Your task to perform on an android device: Search for the best coffee tables on Crate & Barrel Image 0: 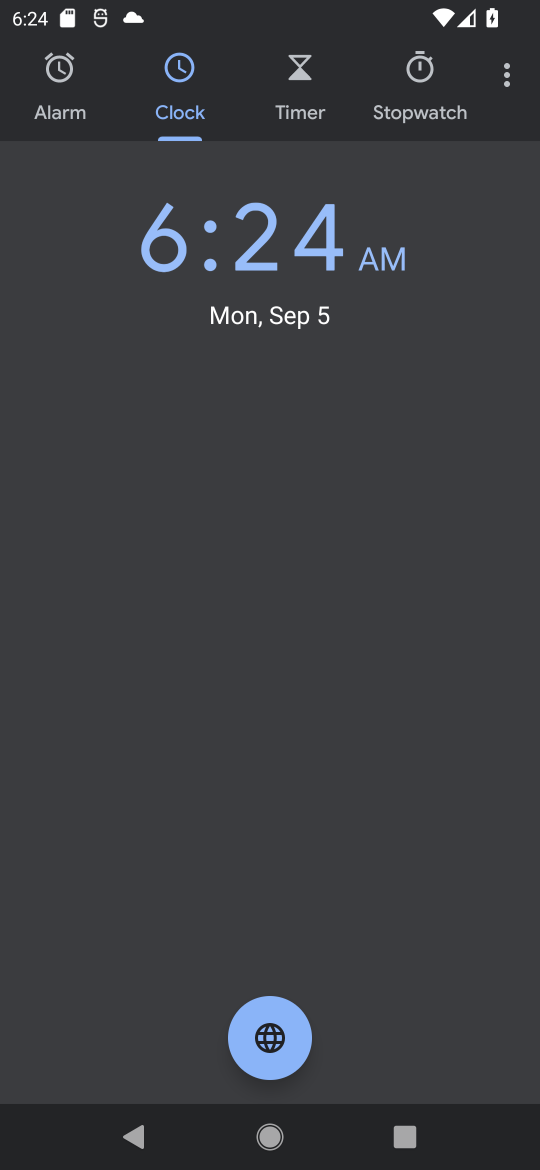
Step 0: press home button
Your task to perform on an android device: Search for the best coffee tables on Crate & Barrel Image 1: 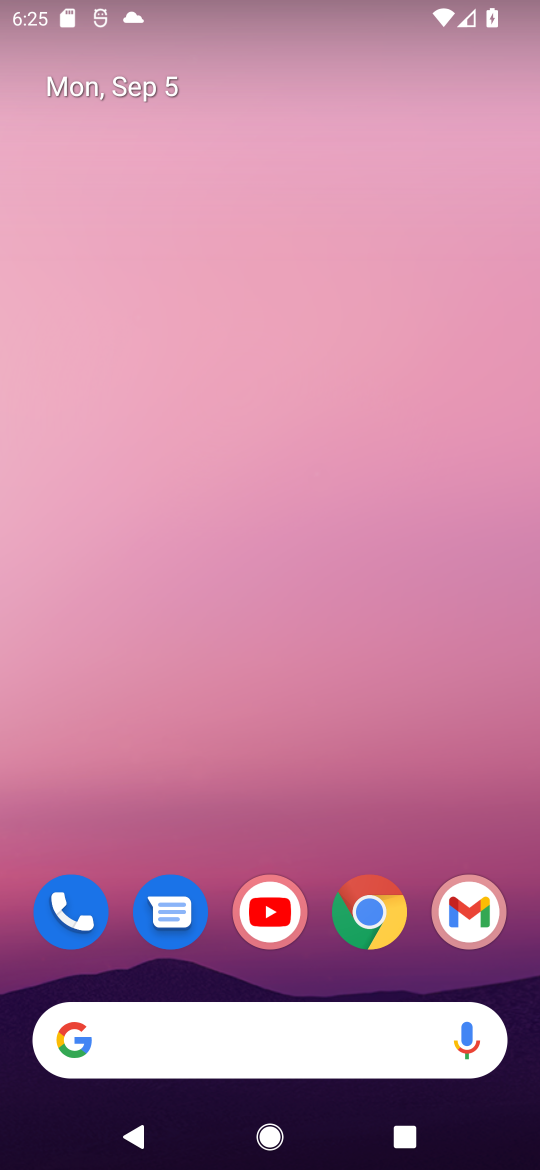
Step 1: click (364, 915)
Your task to perform on an android device: Search for the best coffee tables on Crate & Barrel Image 2: 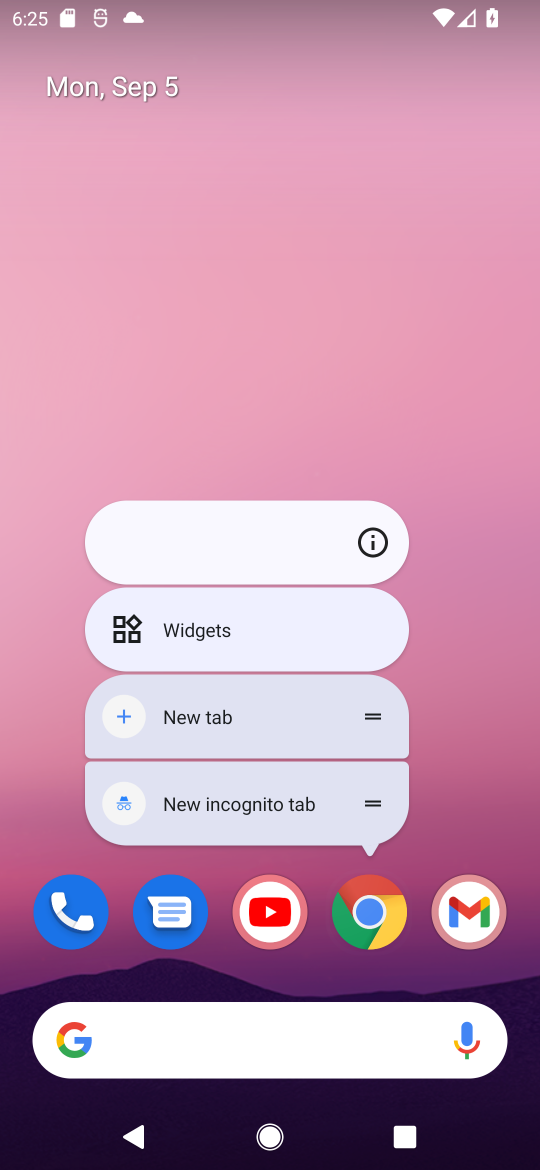
Step 2: click (364, 915)
Your task to perform on an android device: Search for the best coffee tables on Crate & Barrel Image 3: 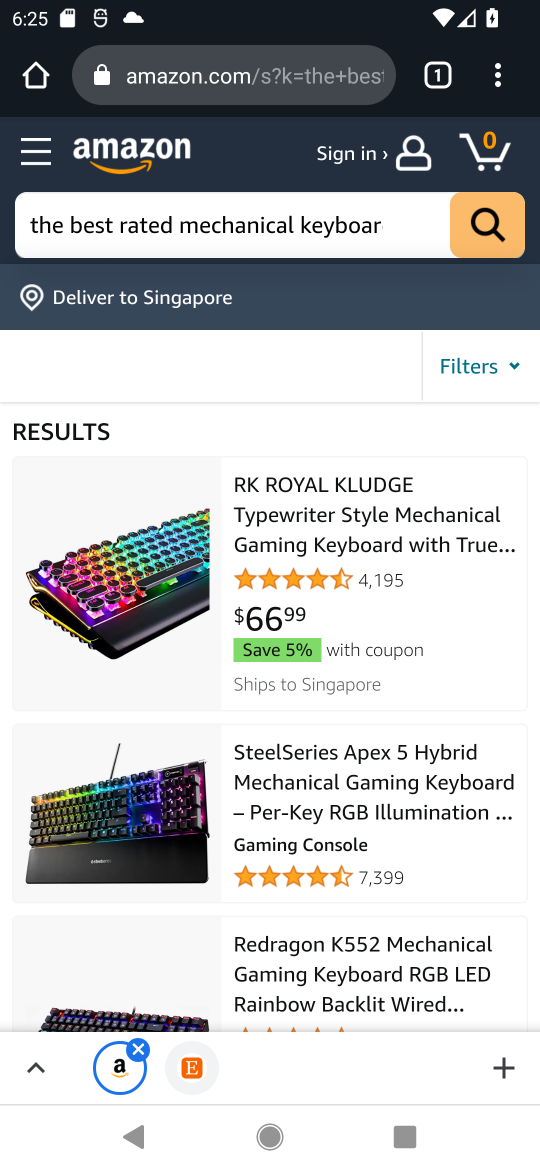
Step 3: click (206, 77)
Your task to perform on an android device: Search for the best coffee tables on Crate & Barrel Image 4: 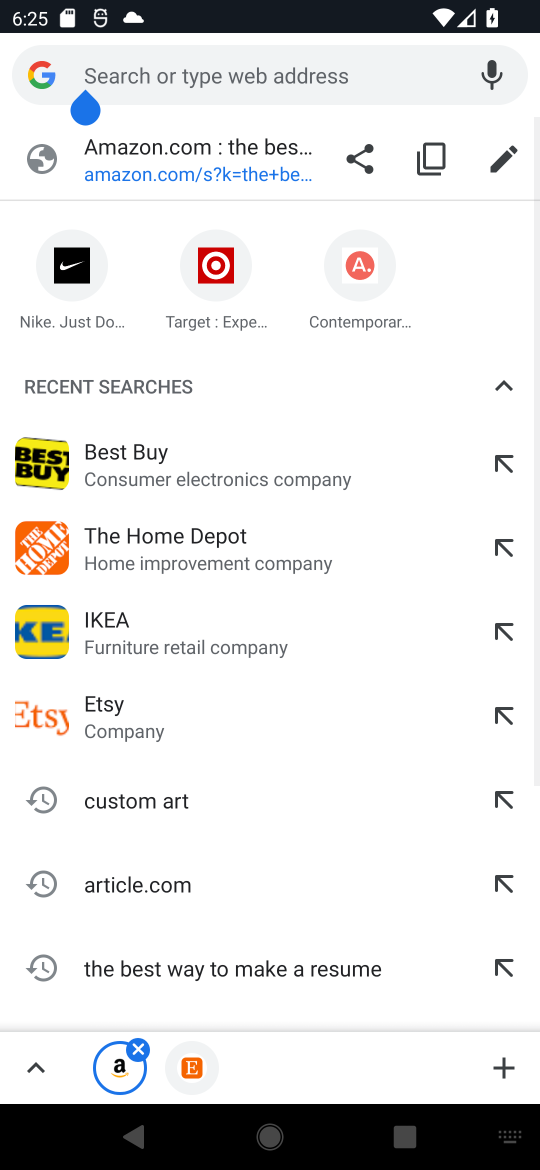
Step 4: type ""
Your task to perform on an android device: Search for the best coffee tables on Crate & Barrel Image 5: 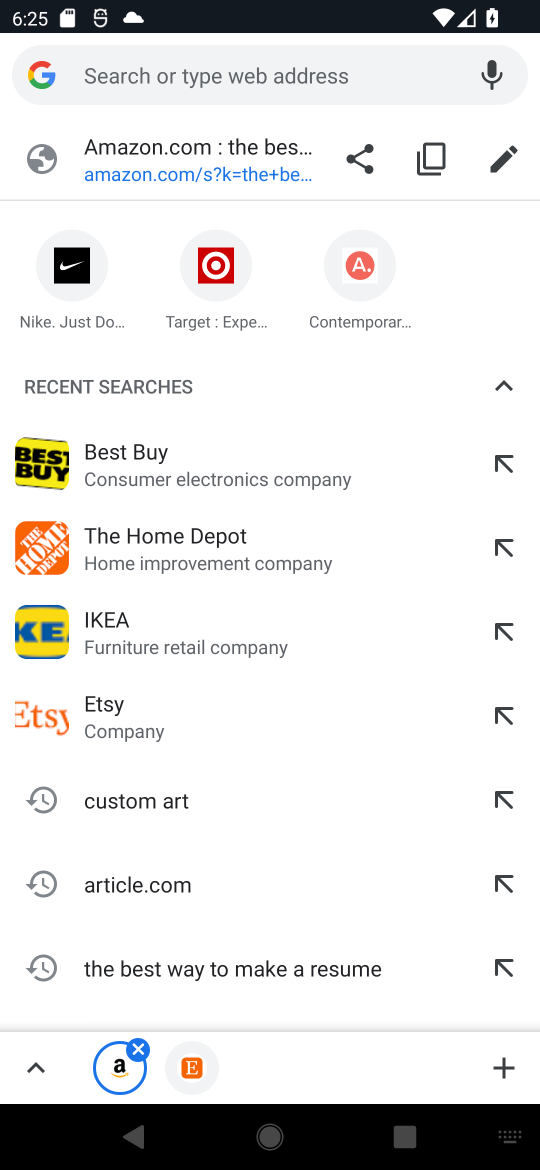
Step 5: type "Crate and barrels"
Your task to perform on an android device: Search for the best coffee tables on Crate & Barrel Image 6: 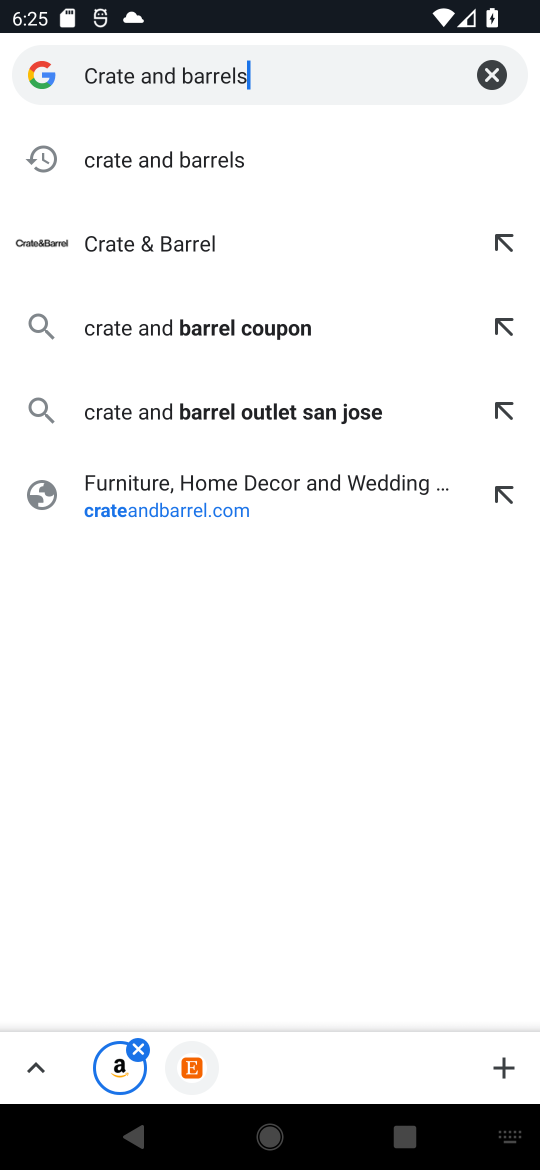
Step 6: click (232, 166)
Your task to perform on an android device: Search for the best coffee tables on Crate & Barrel Image 7: 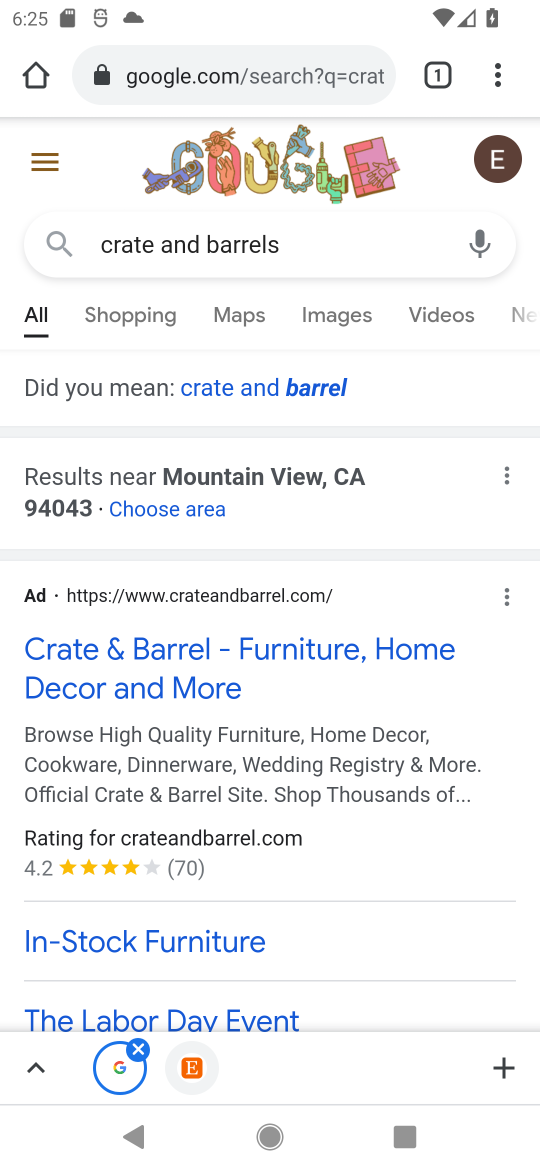
Step 7: click (197, 663)
Your task to perform on an android device: Search for the best coffee tables on Crate & Barrel Image 8: 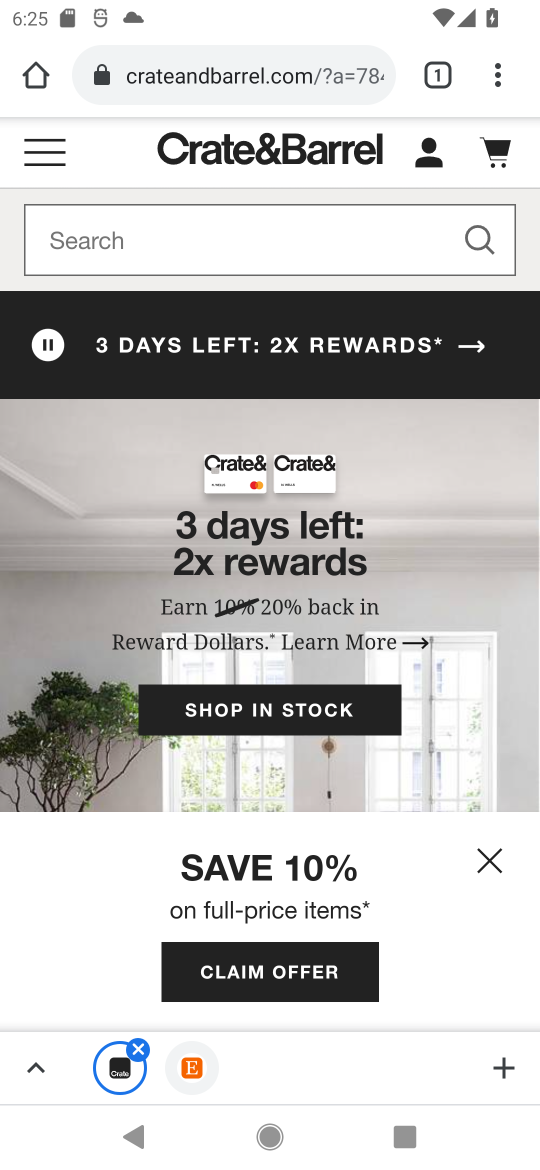
Step 8: click (228, 228)
Your task to perform on an android device: Search for the best coffee tables on Crate & Barrel Image 9: 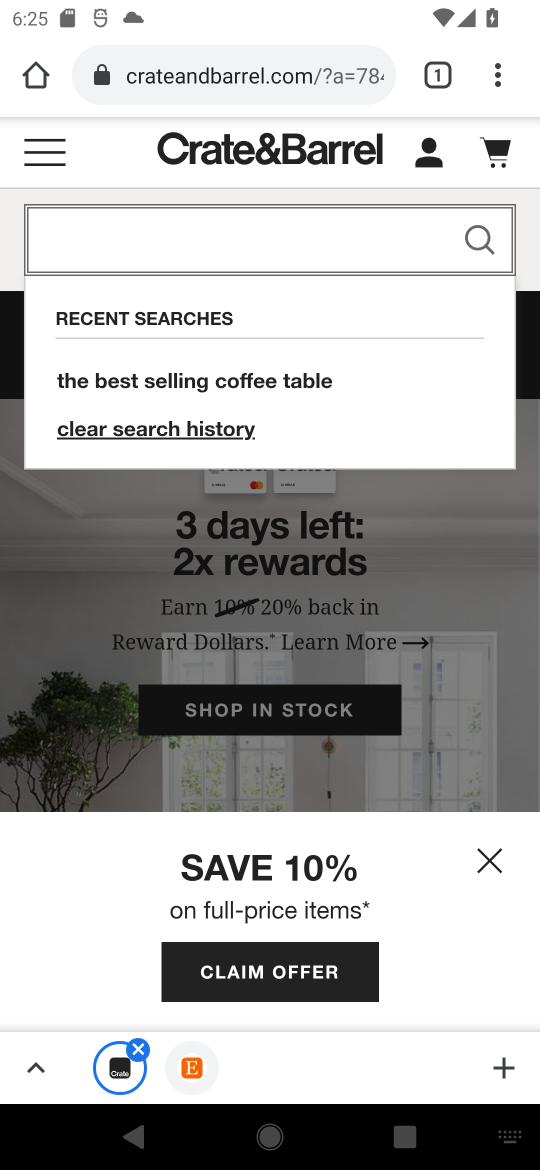
Step 9: type "the best coffee tables"
Your task to perform on an android device: Search for the best coffee tables on Crate & Barrel Image 10: 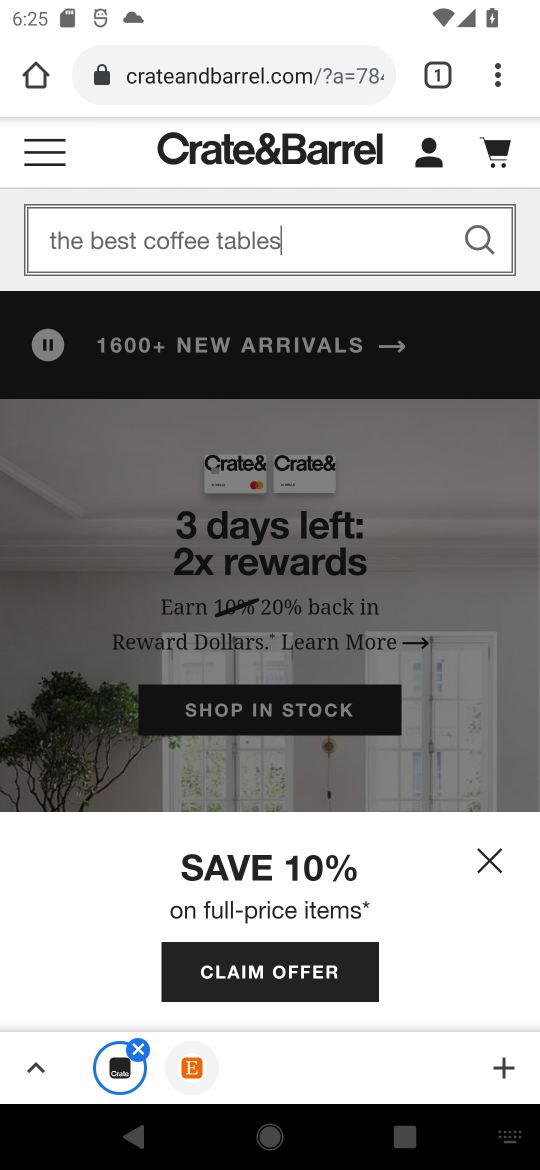
Step 10: click (486, 233)
Your task to perform on an android device: Search for the best coffee tables on Crate & Barrel Image 11: 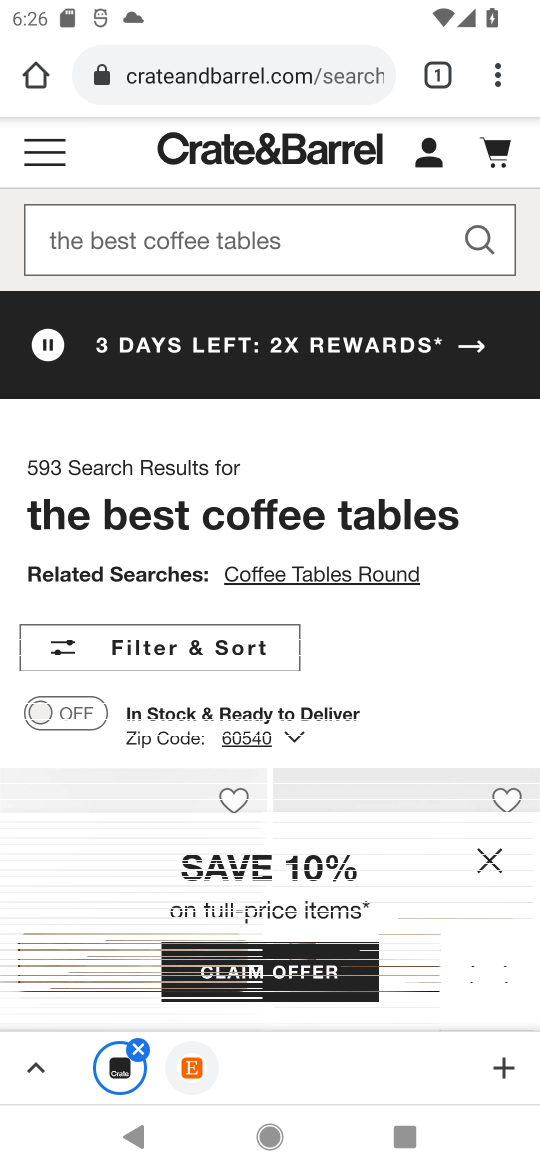
Step 11: task complete